Your task to perform on an android device: Check the news Image 0: 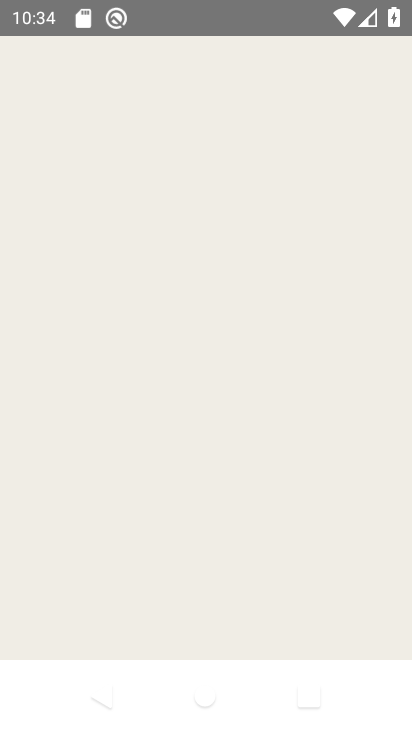
Step 0: drag from (278, 177) to (259, 41)
Your task to perform on an android device: Check the news Image 1: 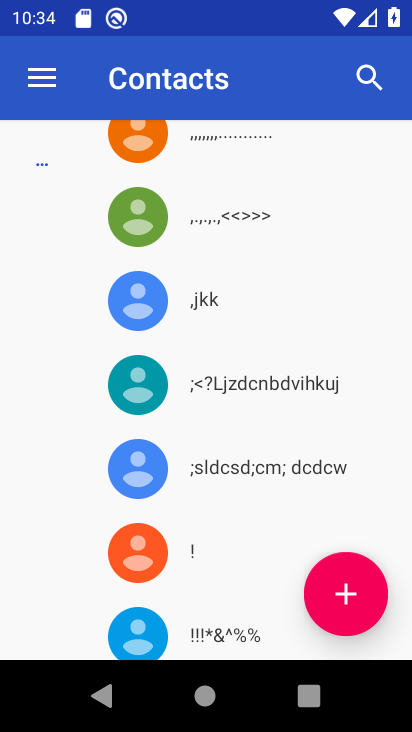
Step 1: press back button
Your task to perform on an android device: Check the news Image 2: 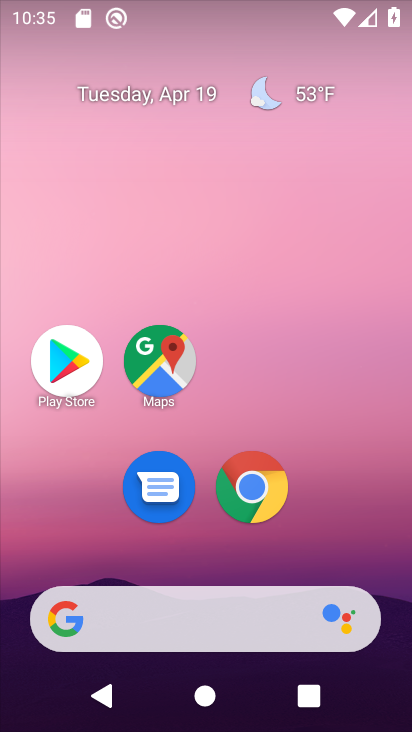
Step 2: drag from (360, 499) to (271, 39)
Your task to perform on an android device: Check the news Image 3: 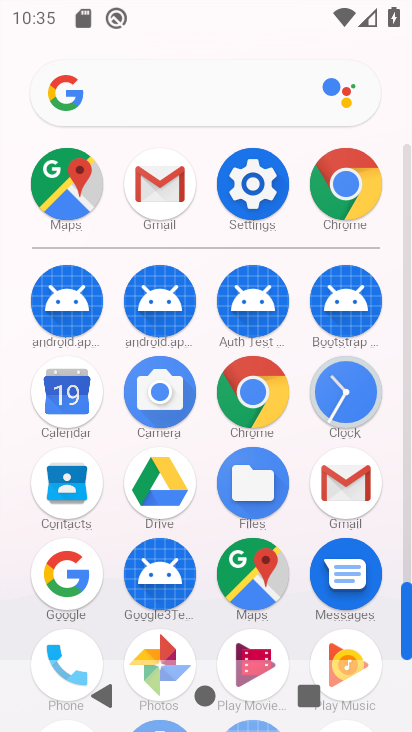
Step 3: drag from (4, 539) to (0, 311)
Your task to perform on an android device: Check the news Image 4: 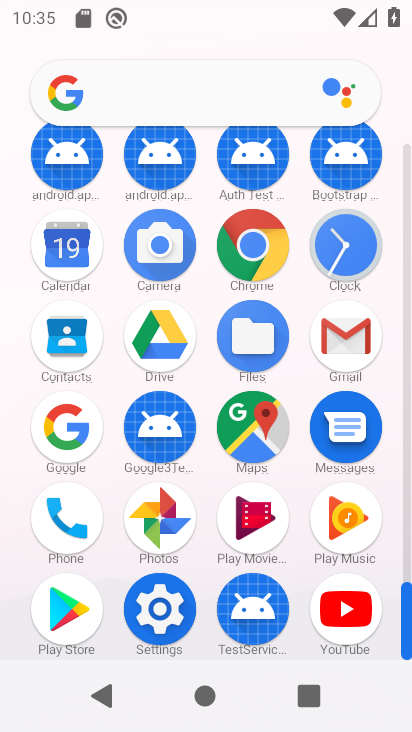
Step 4: drag from (11, 264) to (9, 532)
Your task to perform on an android device: Check the news Image 5: 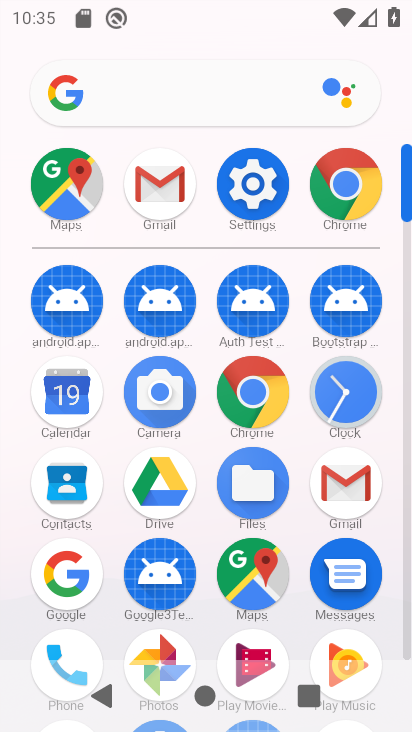
Step 5: click (176, 73)
Your task to perform on an android device: Check the news Image 6: 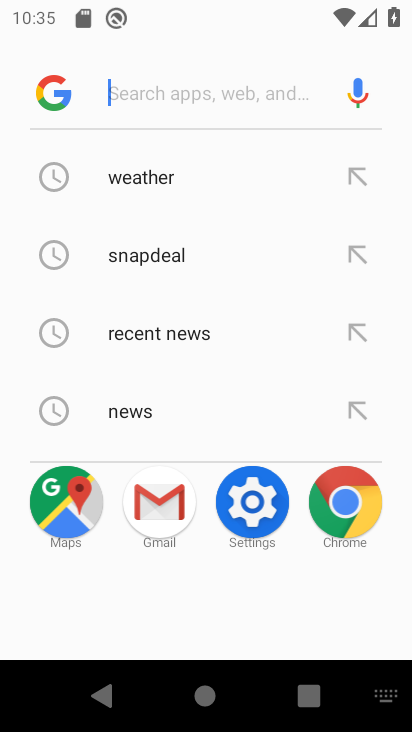
Step 6: click (156, 407)
Your task to perform on an android device: Check the news Image 7: 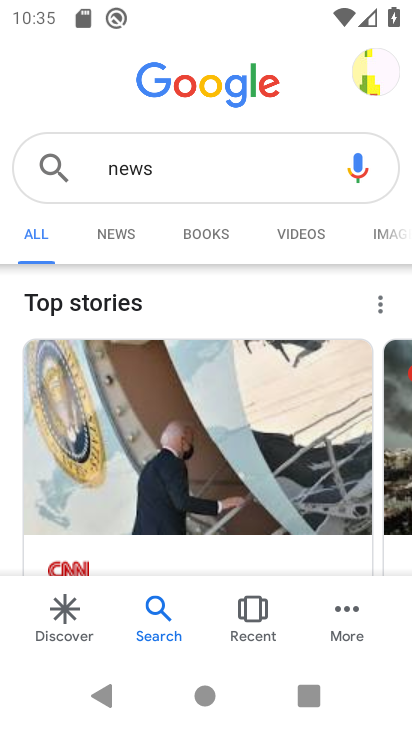
Step 7: task complete